Your task to perform on an android device: Search for vegetarian restaurants on Maps Image 0: 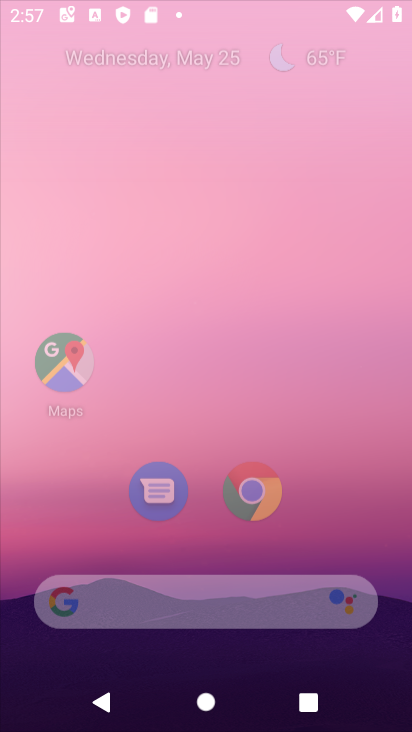
Step 0: click (354, 1)
Your task to perform on an android device: Search for vegetarian restaurants on Maps Image 1: 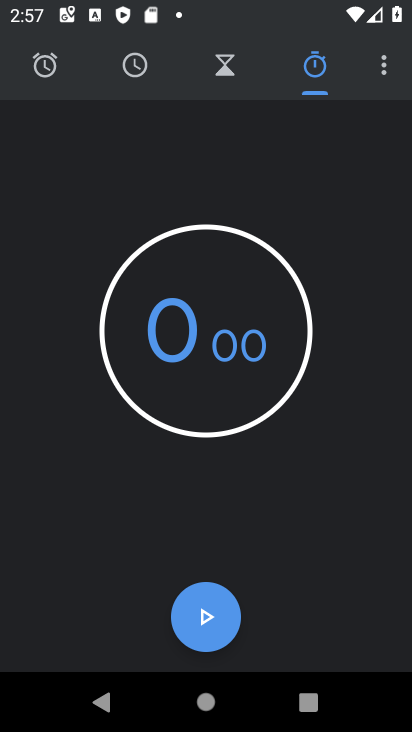
Step 1: press home button
Your task to perform on an android device: Search for vegetarian restaurants on Maps Image 2: 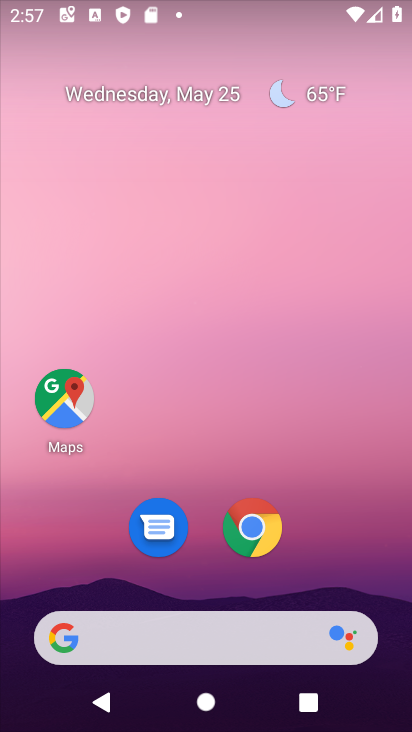
Step 2: drag from (272, 628) to (167, 33)
Your task to perform on an android device: Search for vegetarian restaurants on Maps Image 3: 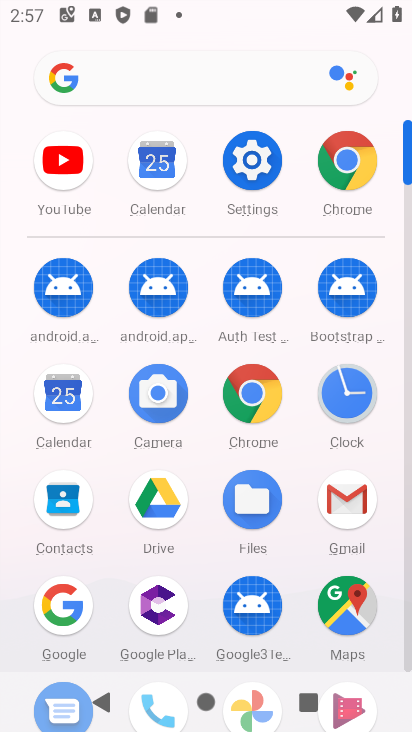
Step 3: click (348, 580)
Your task to perform on an android device: Search for vegetarian restaurants on Maps Image 4: 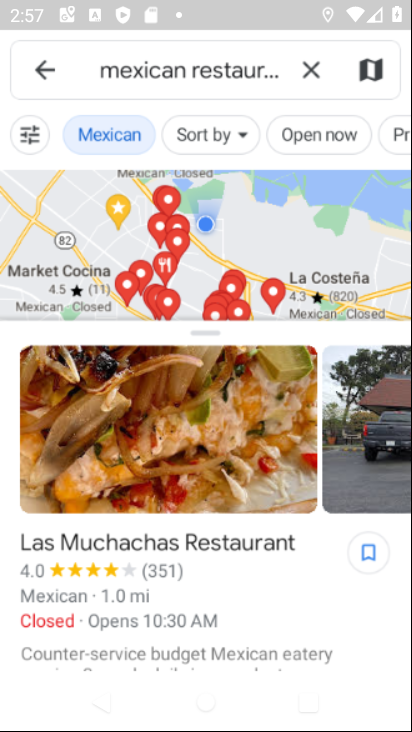
Step 4: click (305, 69)
Your task to perform on an android device: Search for vegetarian restaurants on Maps Image 5: 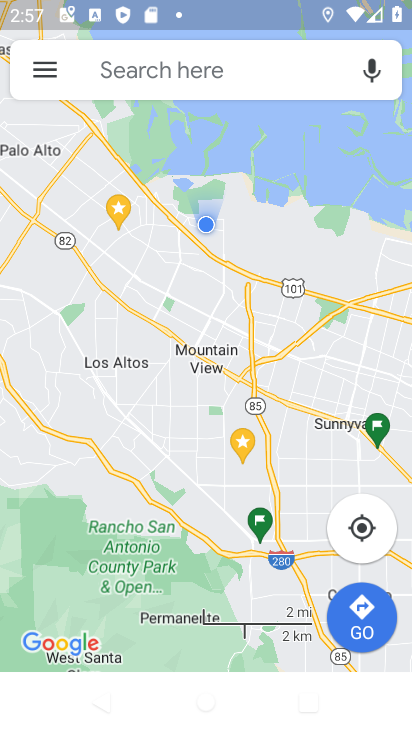
Step 5: click (268, 67)
Your task to perform on an android device: Search for vegetarian restaurants on Maps Image 6: 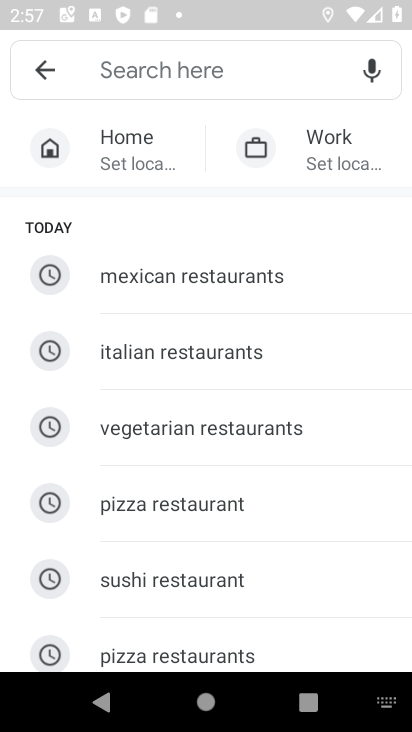
Step 6: click (248, 414)
Your task to perform on an android device: Search for vegetarian restaurants on Maps Image 7: 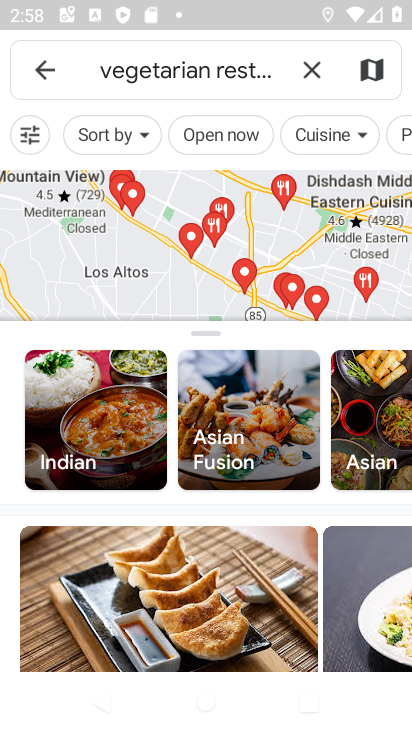
Step 7: task complete